Your task to perform on an android device: Go to notification settings Image 0: 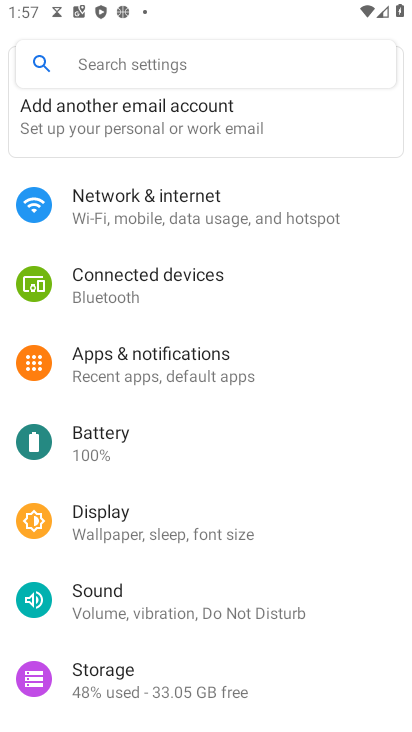
Step 0: click (160, 362)
Your task to perform on an android device: Go to notification settings Image 1: 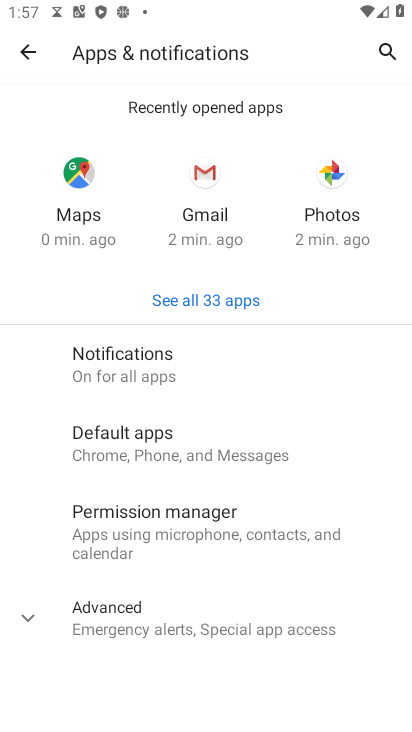
Step 1: click (166, 375)
Your task to perform on an android device: Go to notification settings Image 2: 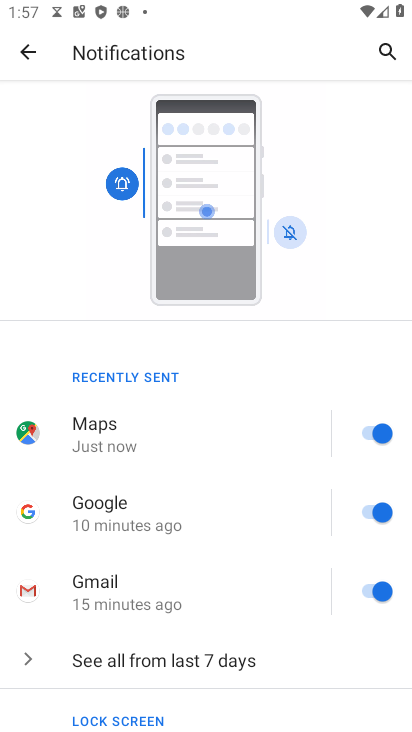
Step 2: task complete